Your task to perform on an android device: Search for desk lamps on article.com Image 0: 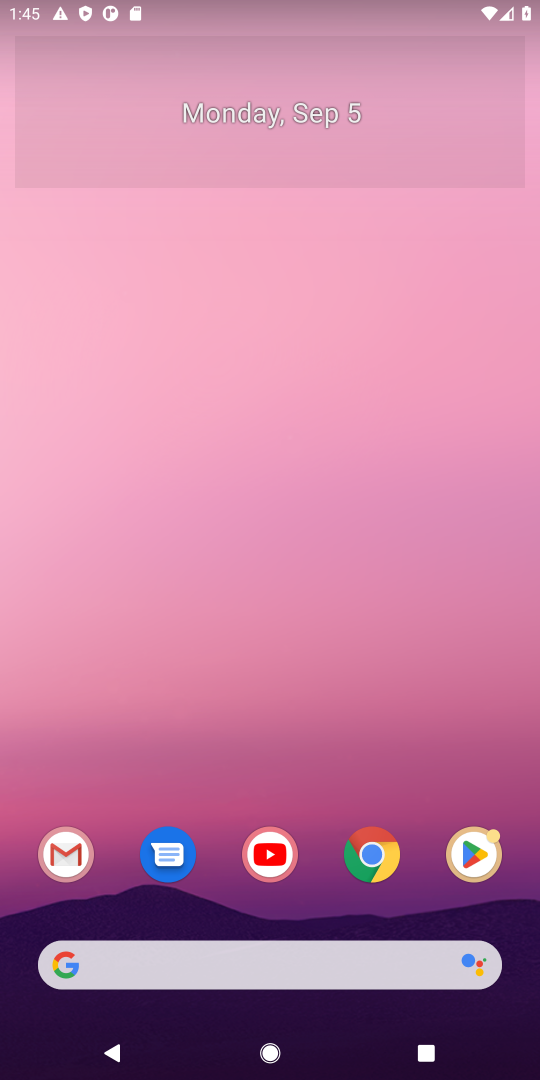
Step 0: click (376, 971)
Your task to perform on an android device: Search for desk lamps on article.com Image 1: 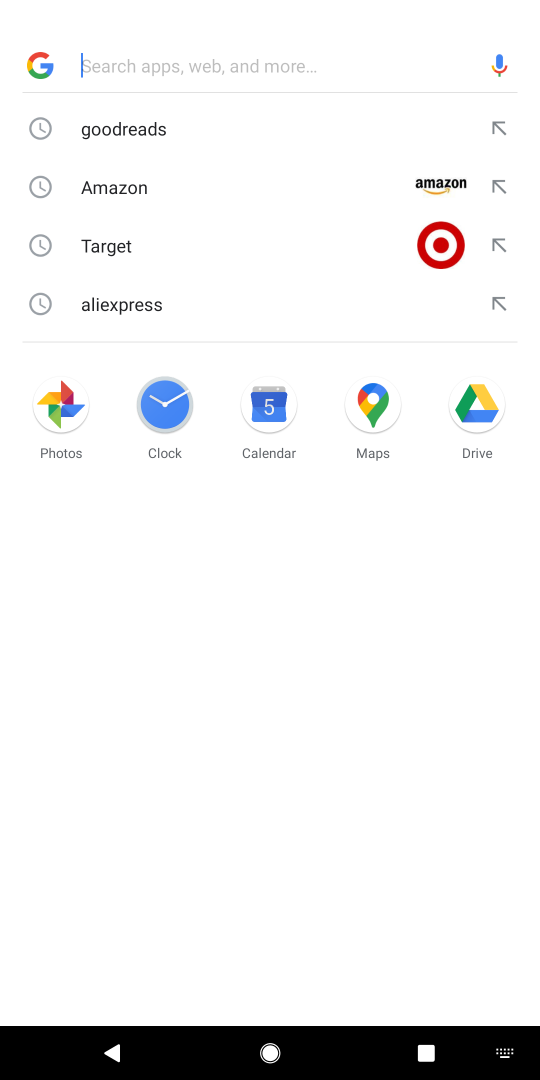
Step 1: press enter
Your task to perform on an android device: Search for desk lamps on article.com Image 2: 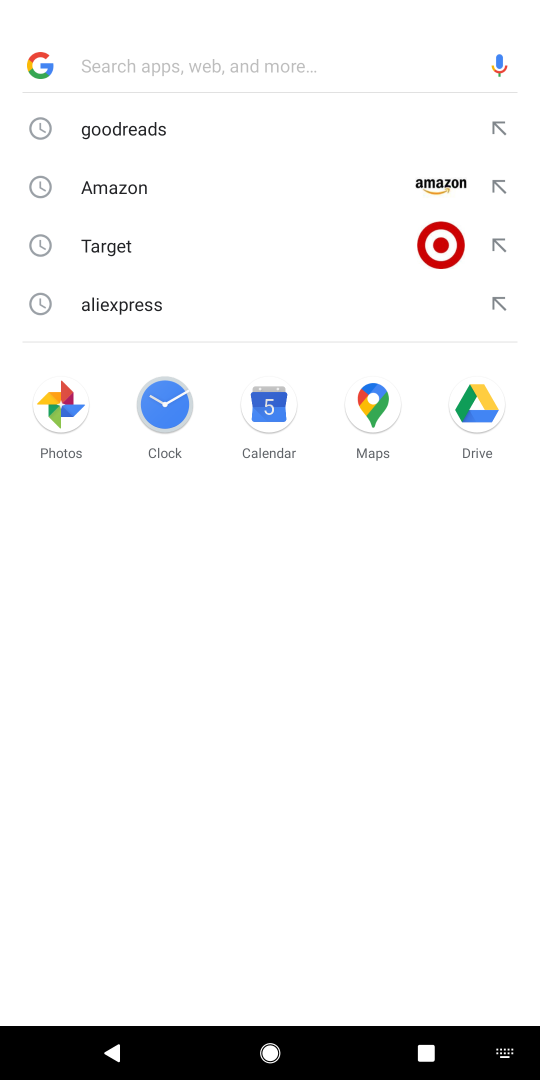
Step 2: type "article.com"
Your task to perform on an android device: Search for desk lamps on article.com Image 3: 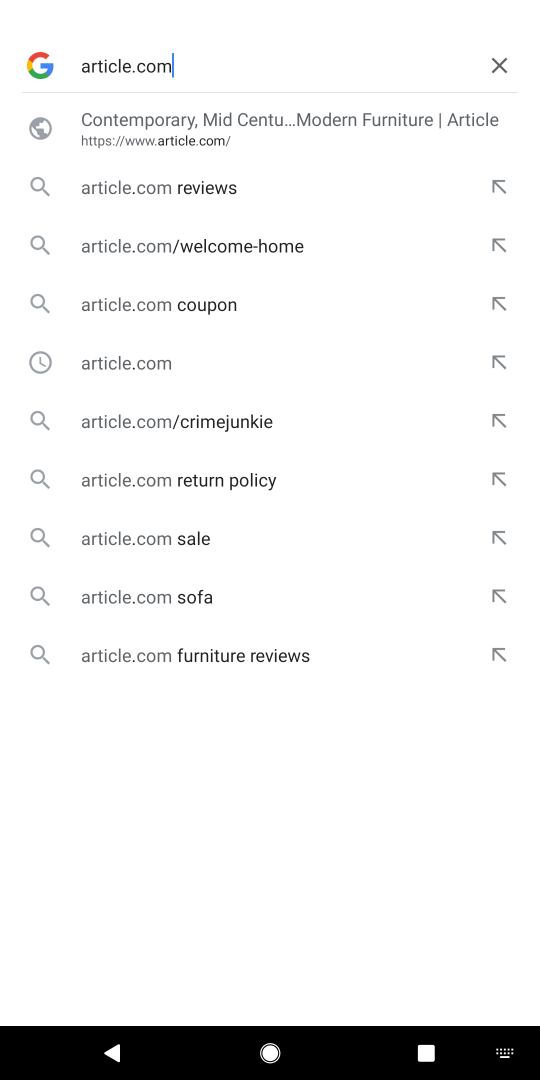
Step 3: click (208, 132)
Your task to perform on an android device: Search for desk lamps on article.com Image 4: 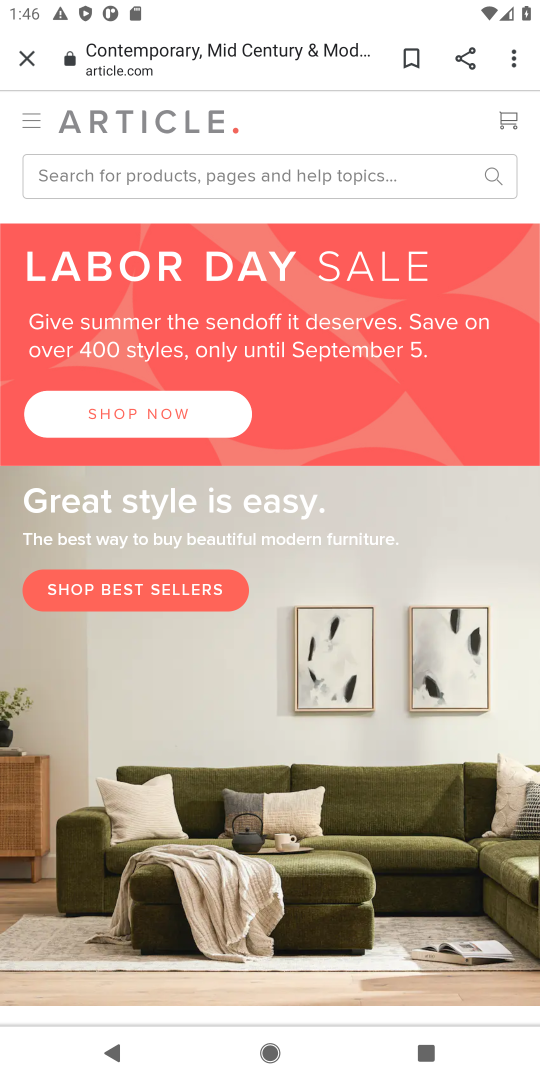
Step 4: click (151, 164)
Your task to perform on an android device: Search for desk lamps on article.com Image 5: 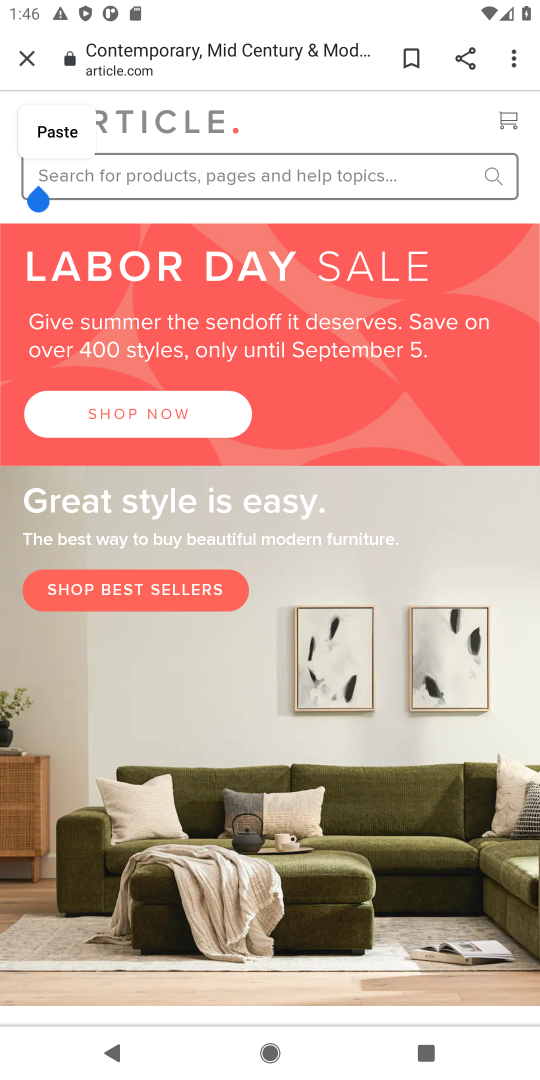
Step 5: type "desk lamps"
Your task to perform on an android device: Search for desk lamps on article.com Image 6: 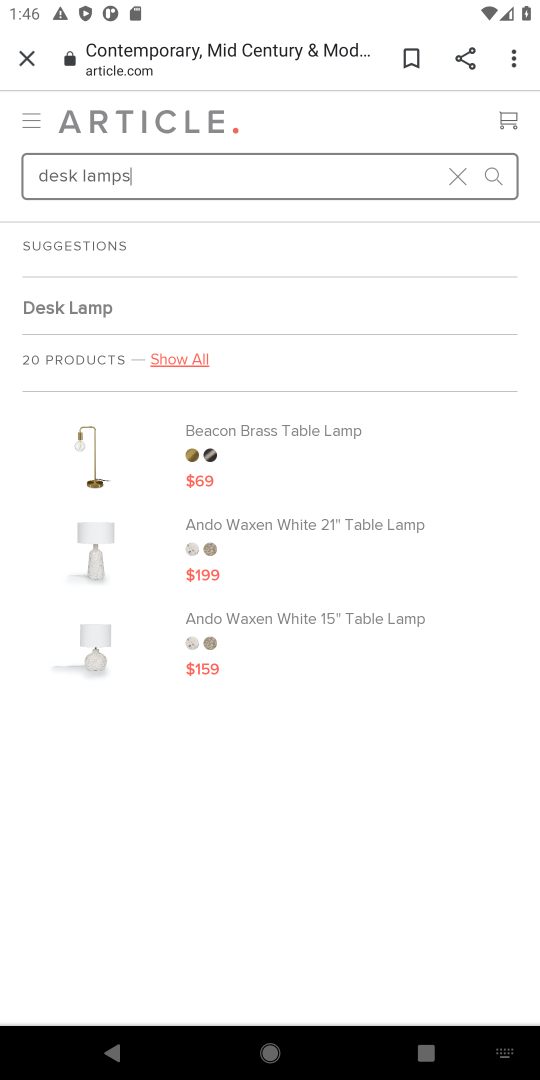
Step 6: task complete